Your task to perform on an android device: Go to Android settings Image 0: 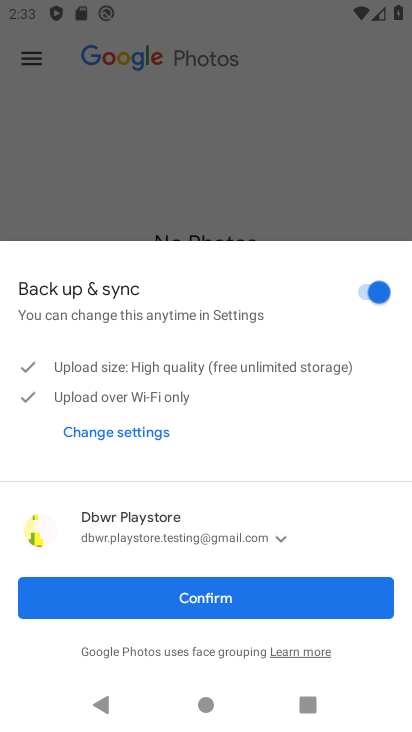
Step 0: press home button
Your task to perform on an android device: Go to Android settings Image 1: 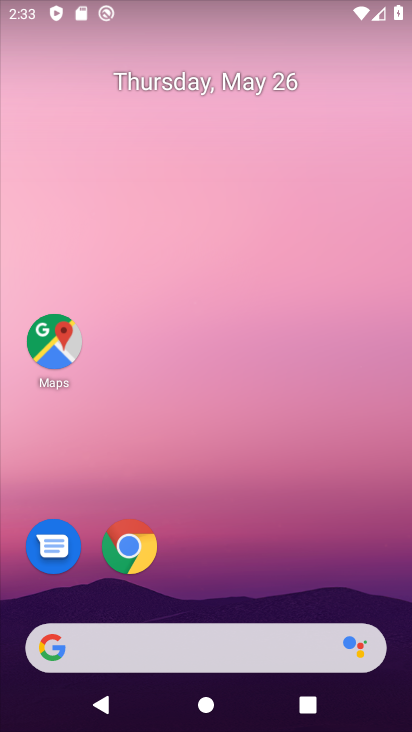
Step 1: drag from (397, 694) to (354, 203)
Your task to perform on an android device: Go to Android settings Image 2: 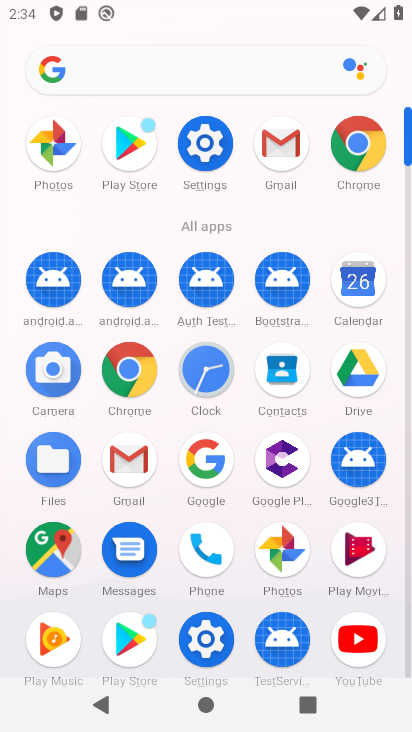
Step 2: click (200, 648)
Your task to perform on an android device: Go to Android settings Image 3: 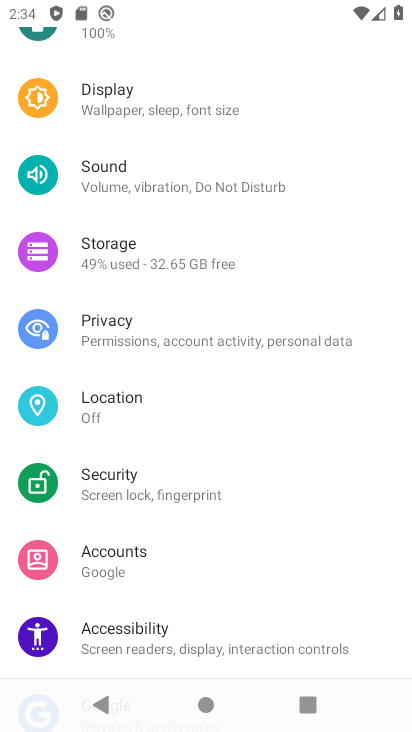
Step 3: task complete